Your task to perform on an android device: Is it going to rain tomorrow? Image 0: 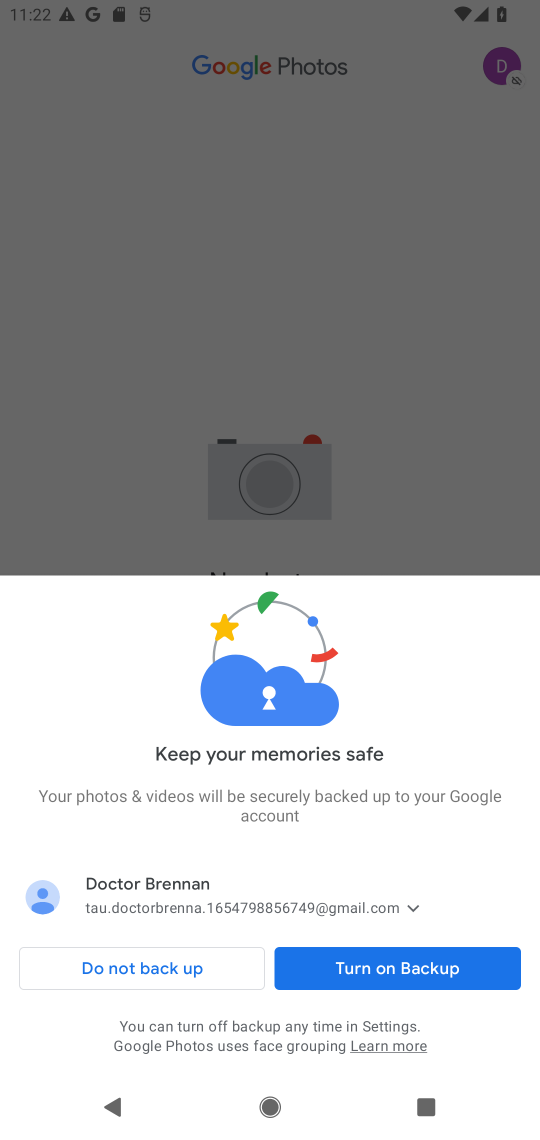
Step 0: press home button
Your task to perform on an android device: Is it going to rain tomorrow? Image 1: 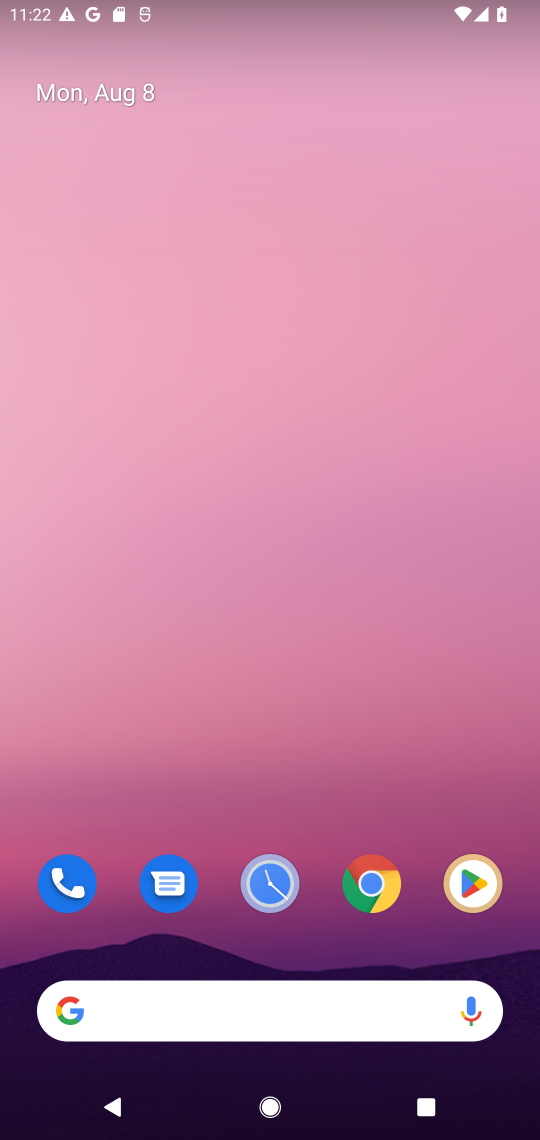
Step 1: press home button
Your task to perform on an android device: Is it going to rain tomorrow? Image 2: 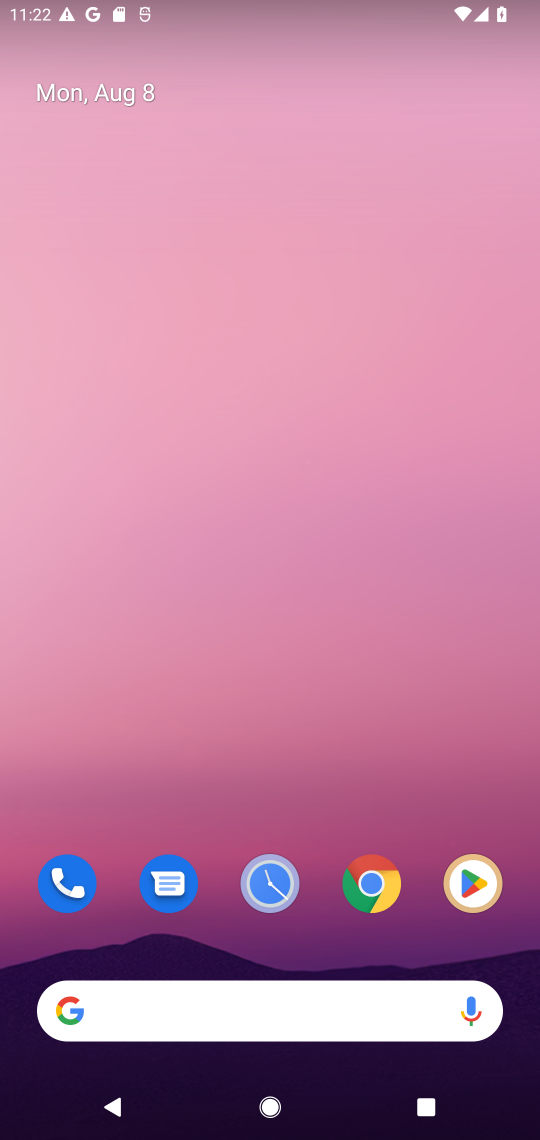
Step 2: click (179, 1010)
Your task to perform on an android device: Is it going to rain tomorrow? Image 3: 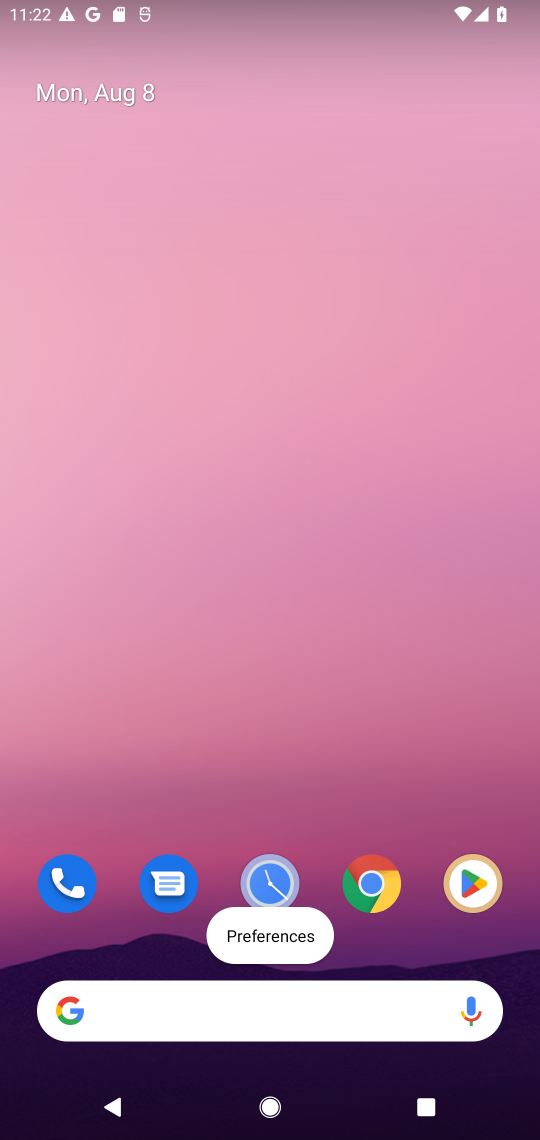
Step 3: click (172, 1005)
Your task to perform on an android device: Is it going to rain tomorrow? Image 4: 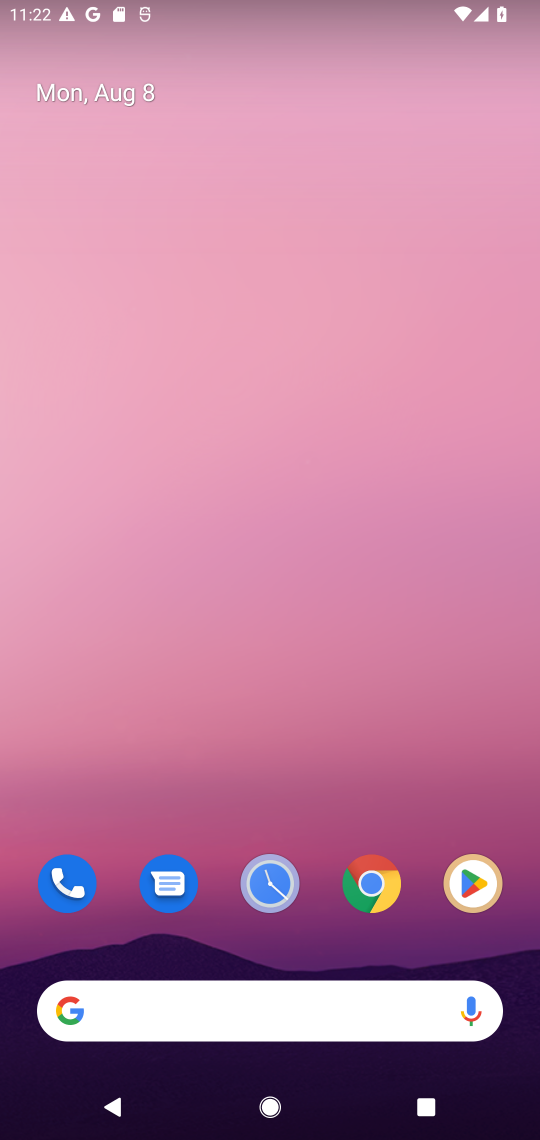
Step 4: click (159, 1003)
Your task to perform on an android device: Is it going to rain tomorrow? Image 5: 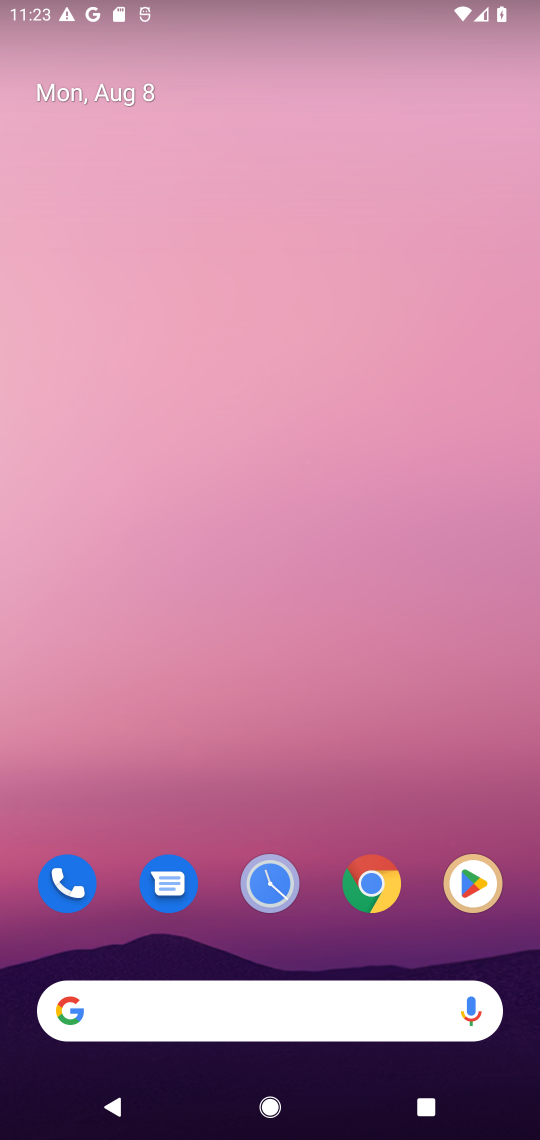
Step 5: click (158, 1005)
Your task to perform on an android device: Is it going to rain tomorrow? Image 6: 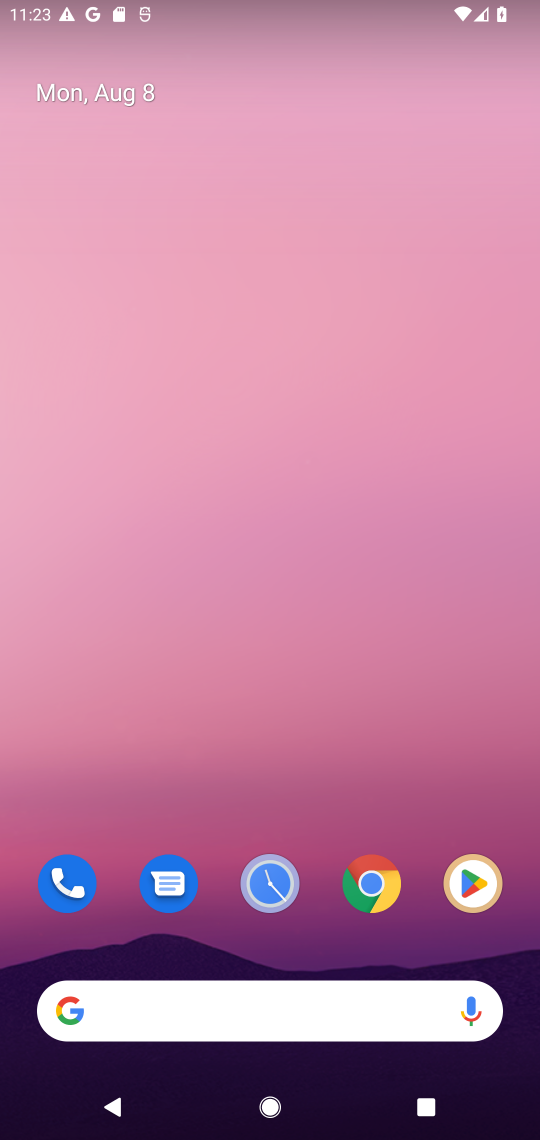
Step 6: click (137, 1000)
Your task to perform on an android device: Is it going to rain tomorrow? Image 7: 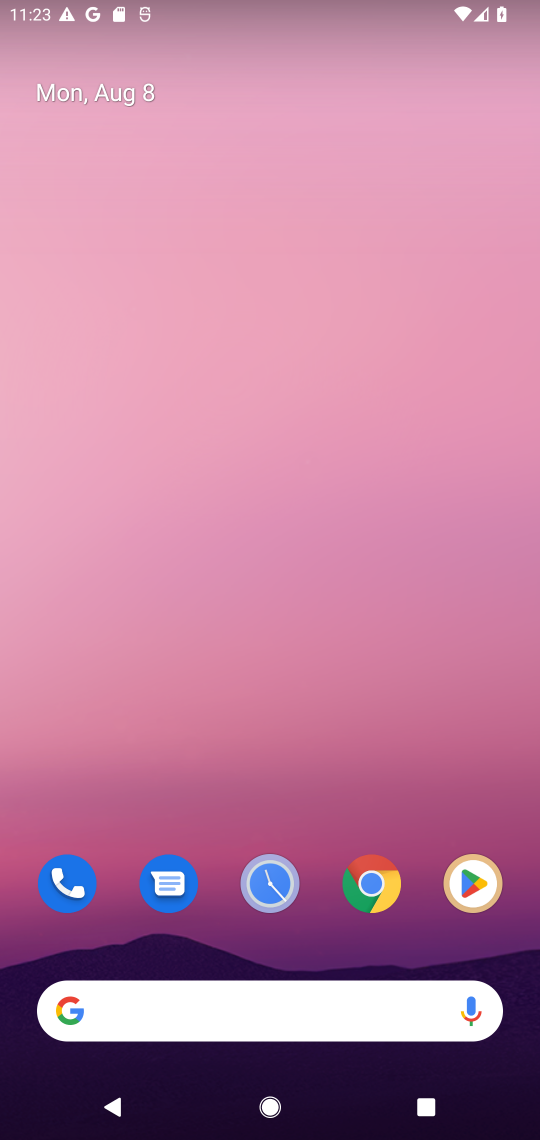
Step 7: click (145, 1007)
Your task to perform on an android device: Is it going to rain tomorrow? Image 8: 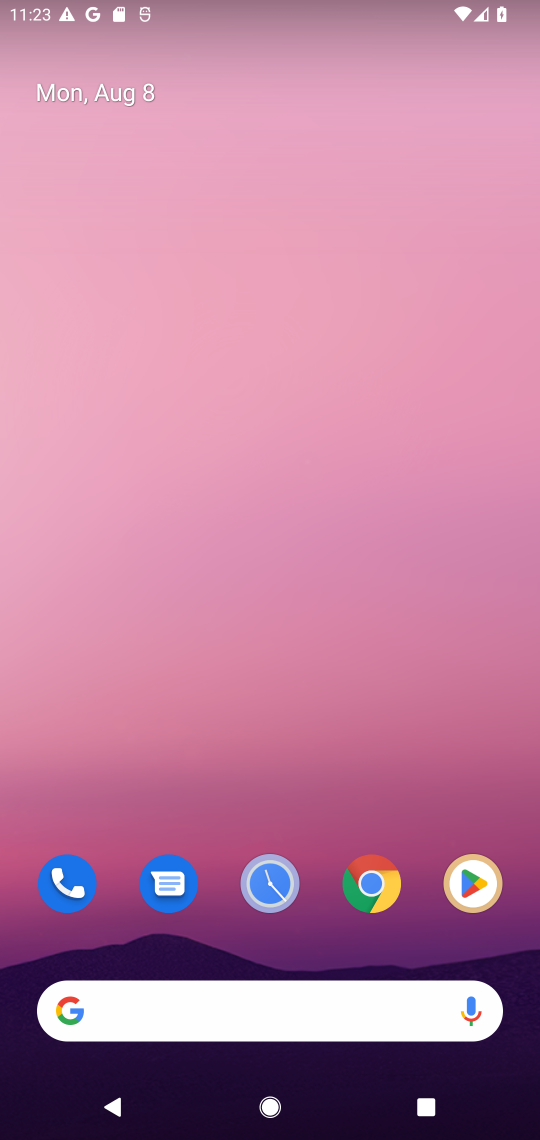
Step 8: click (145, 1007)
Your task to perform on an android device: Is it going to rain tomorrow? Image 9: 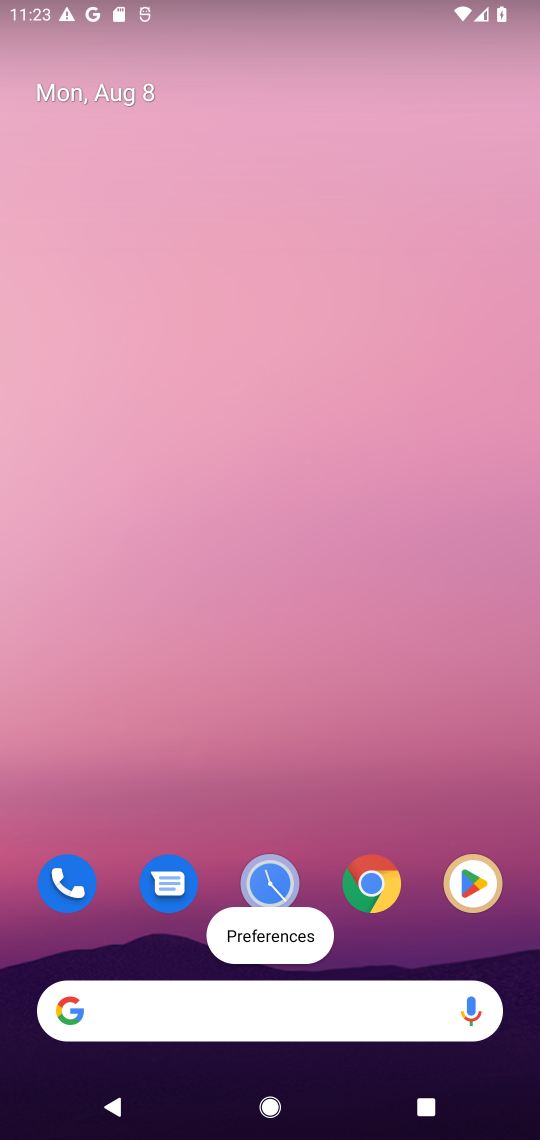
Step 9: drag from (338, 940) to (474, 104)
Your task to perform on an android device: Is it going to rain tomorrow? Image 10: 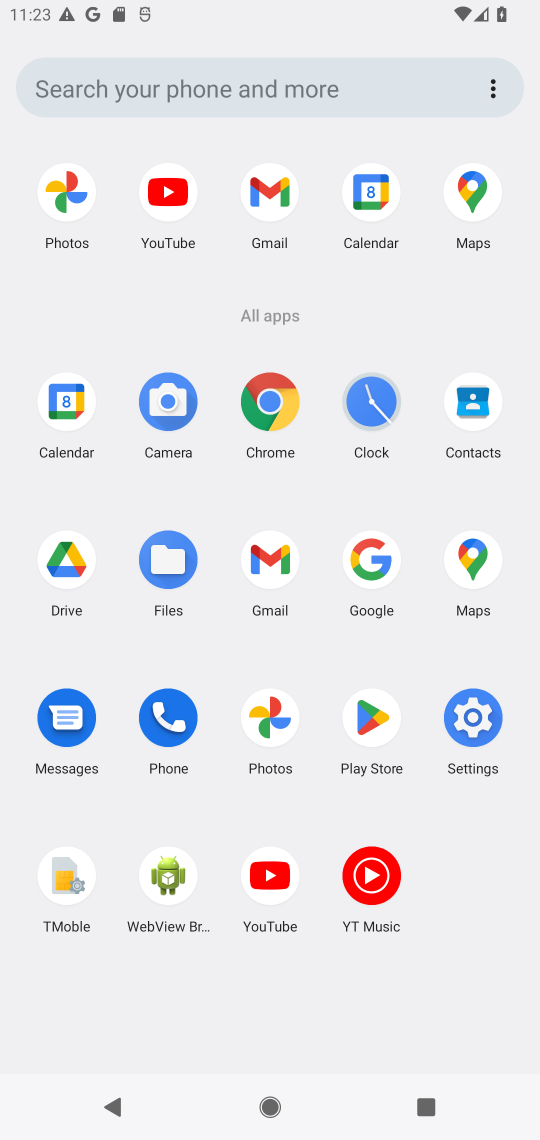
Step 10: click (213, 83)
Your task to perform on an android device: Is it going to rain tomorrow? Image 11: 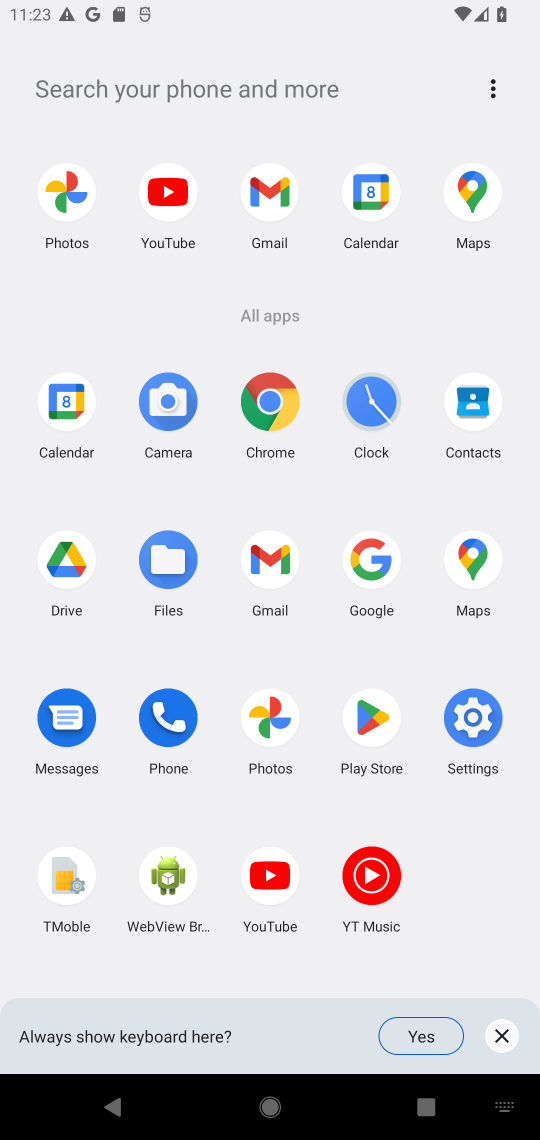
Step 11: type "weathwr"
Your task to perform on an android device: Is it going to rain tomorrow? Image 12: 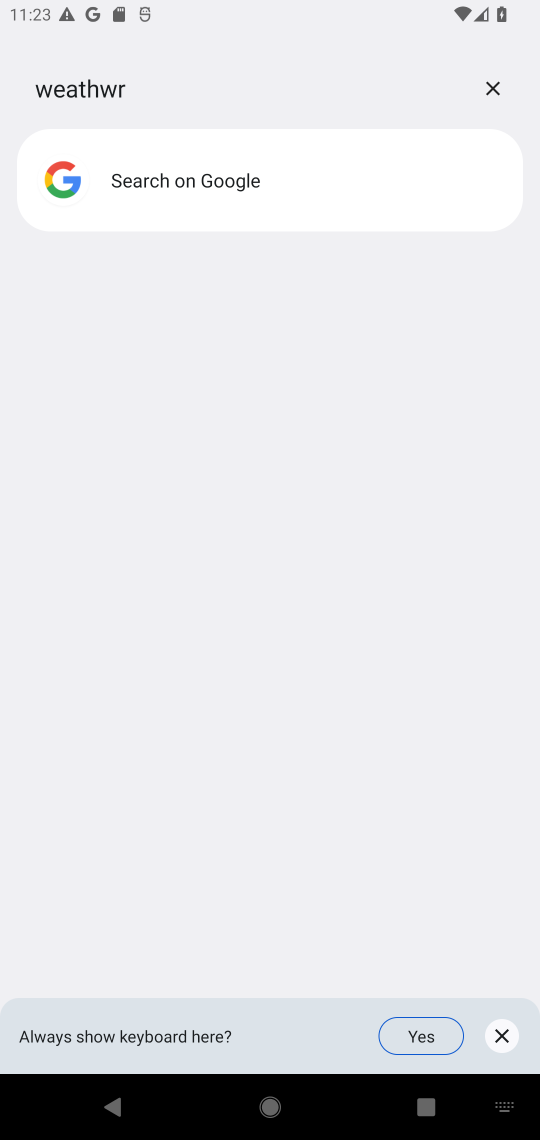
Step 12: click (148, 177)
Your task to perform on an android device: Is it going to rain tomorrow? Image 13: 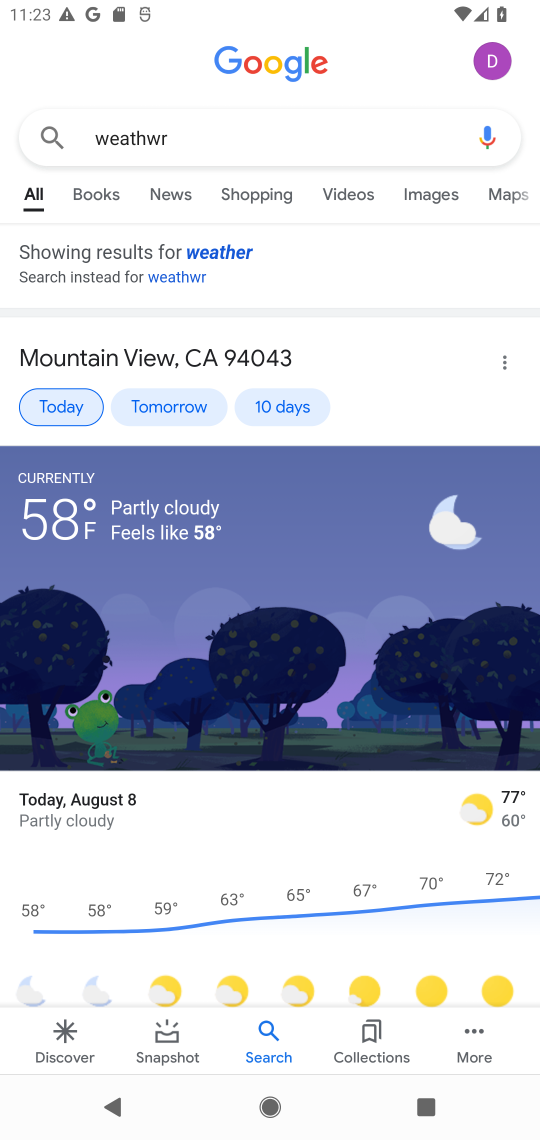
Step 13: drag from (279, 866) to (343, 472)
Your task to perform on an android device: Is it going to rain tomorrow? Image 14: 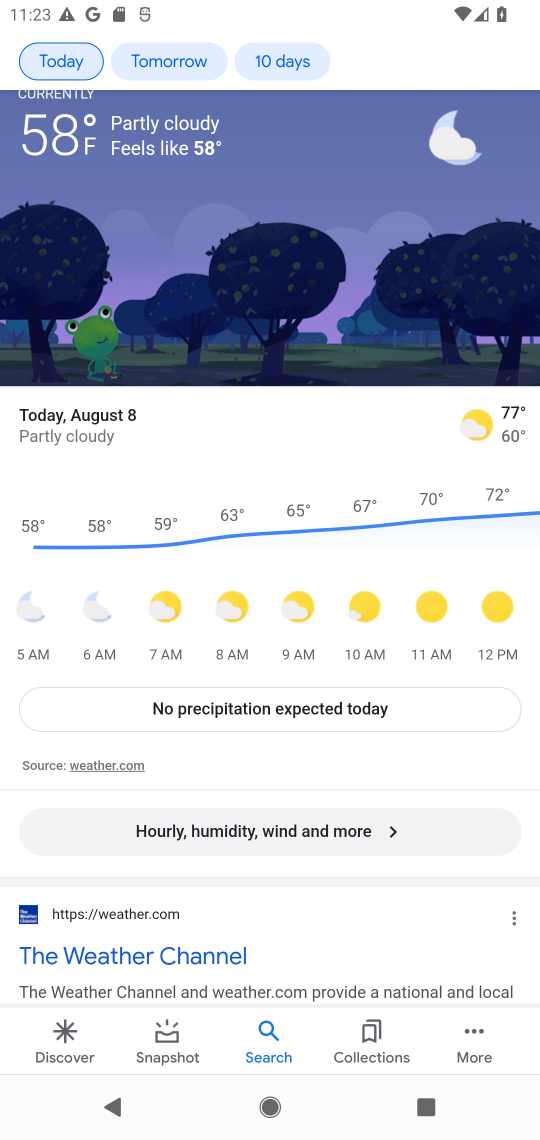
Step 14: click (180, 56)
Your task to perform on an android device: Is it going to rain tomorrow? Image 15: 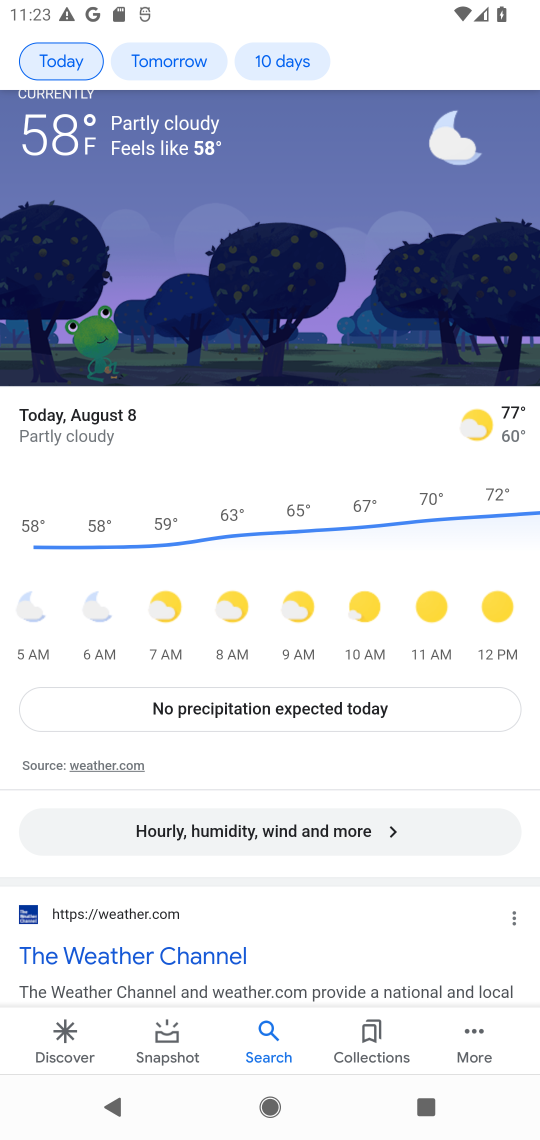
Step 15: click (164, 59)
Your task to perform on an android device: Is it going to rain tomorrow? Image 16: 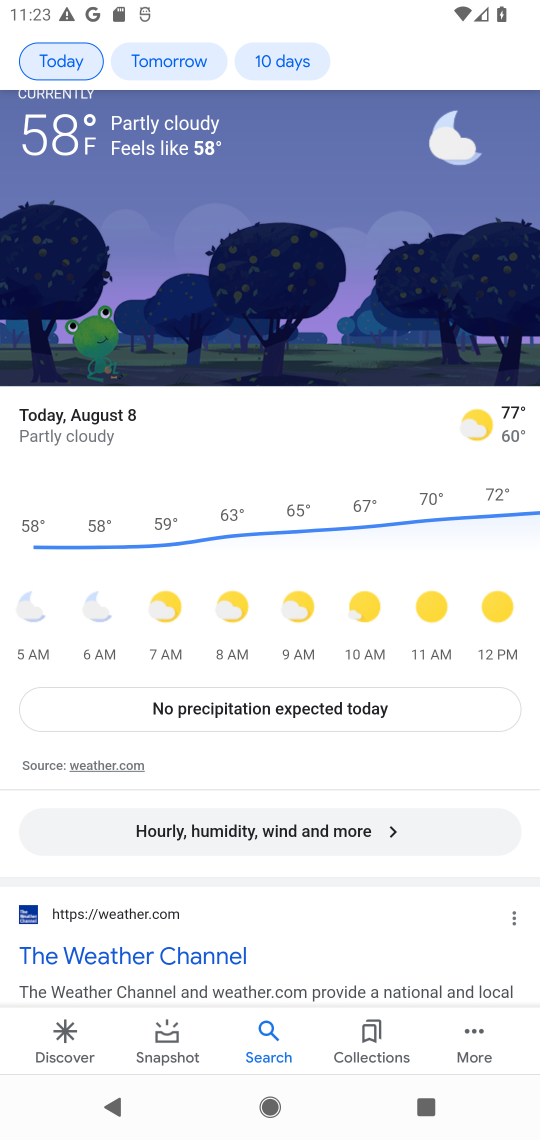
Step 16: task complete